Your task to perform on an android device: turn notification dots on Image 0: 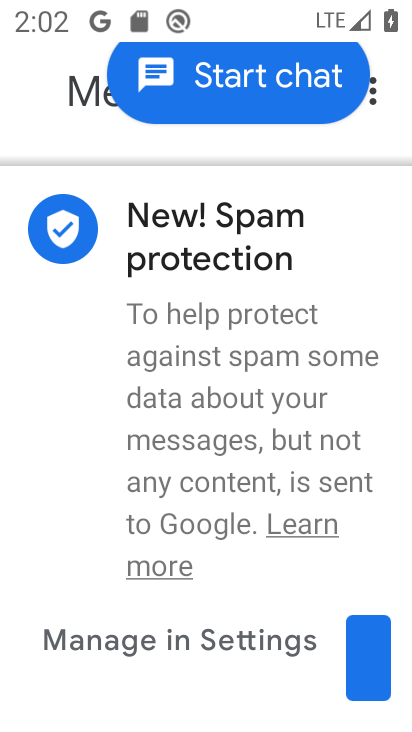
Step 0: press home button
Your task to perform on an android device: turn notification dots on Image 1: 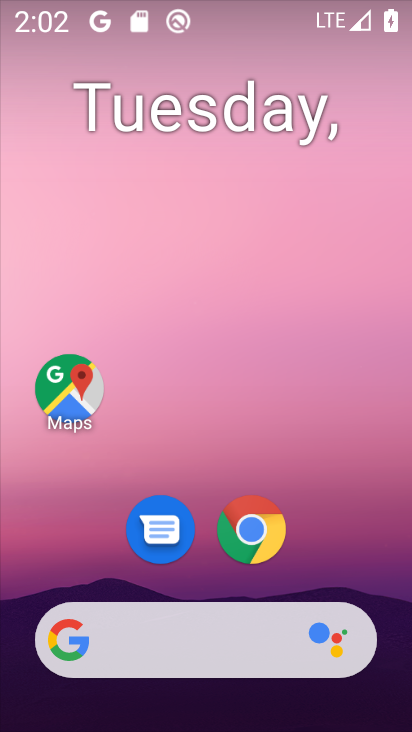
Step 1: drag from (371, 549) to (310, 68)
Your task to perform on an android device: turn notification dots on Image 2: 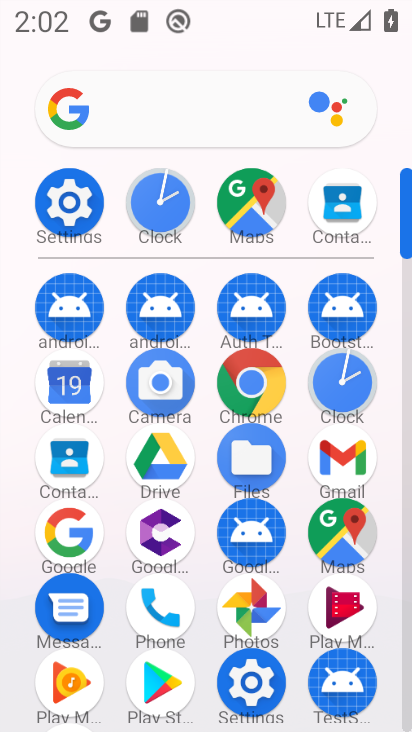
Step 2: click (75, 191)
Your task to perform on an android device: turn notification dots on Image 3: 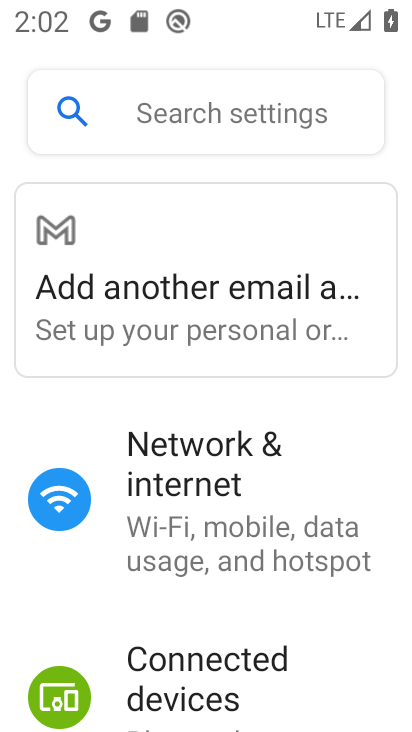
Step 3: drag from (371, 624) to (337, 85)
Your task to perform on an android device: turn notification dots on Image 4: 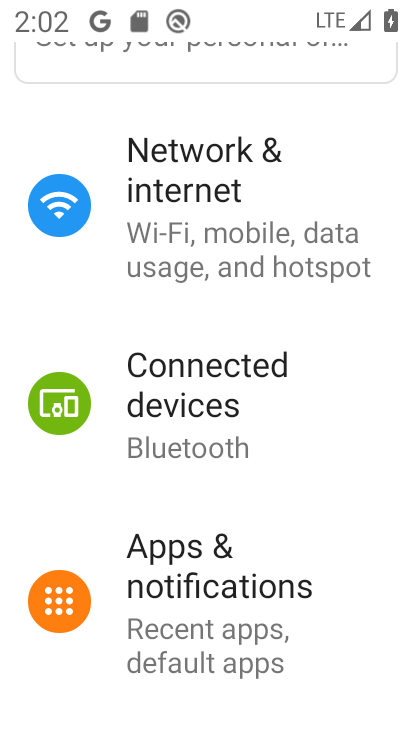
Step 4: click (211, 579)
Your task to perform on an android device: turn notification dots on Image 5: 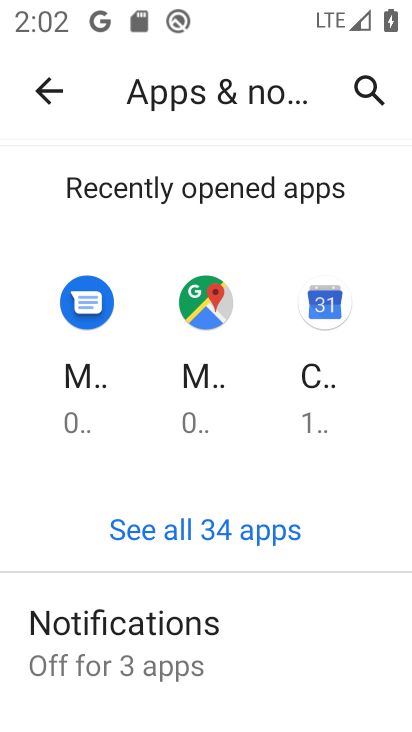
Step 5: drag from (302, 684) to (274, 228)
Your task to perform on an android device: turn notification dots on Image 6: 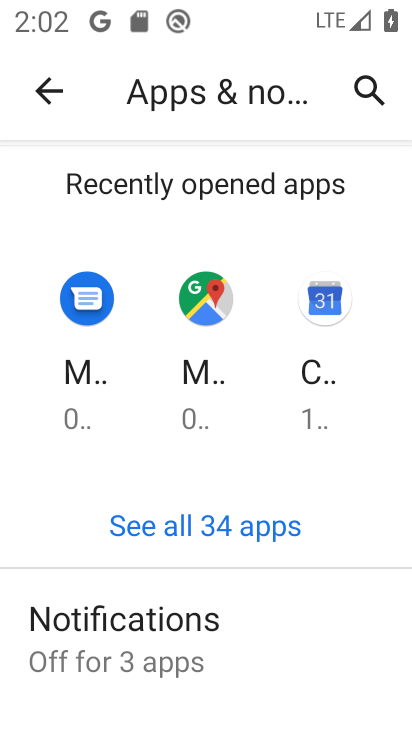
Step 6: drag from (288, 619) to (268, 200)
Your task to perform on an android device: turn notification dots on Image 7: 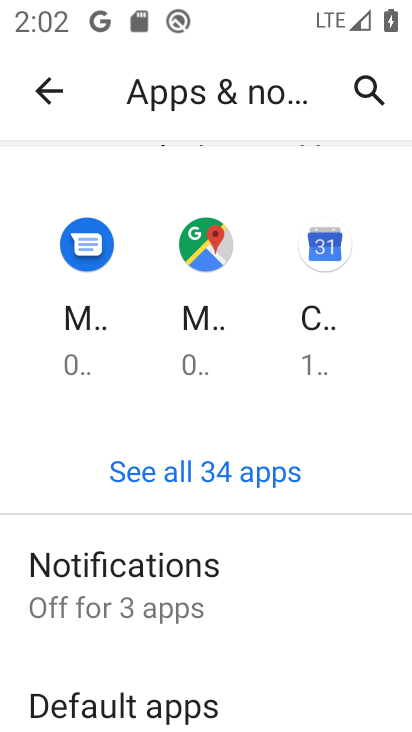
Step 7: click (111, 571)
Your task to perform on an android device: turn notification dots on Image 8: 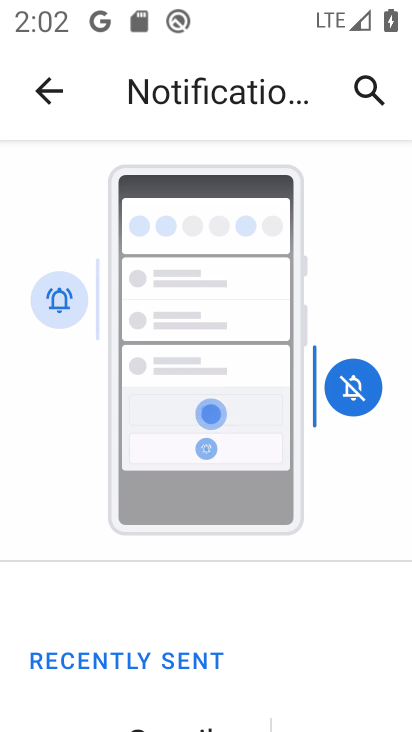
Step 8: drag from (300, 346) to (276, 166)
Your task to perform on an android device: turn notification dots on Image 9: 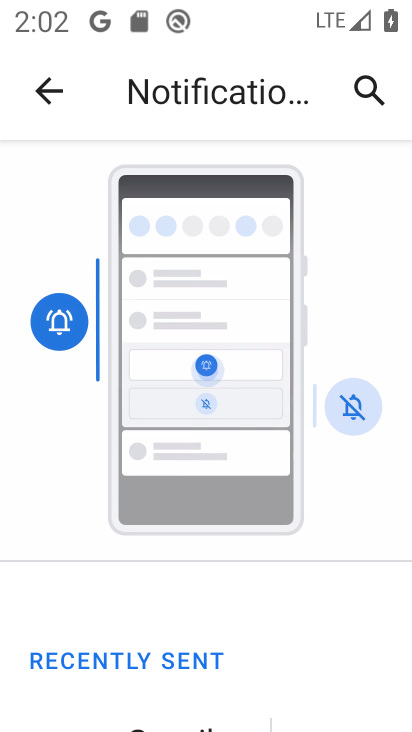
Step 9: drag from (313, 691) to (315, 253)
Your task to perform on an android device: turn notification dots on Image 10: 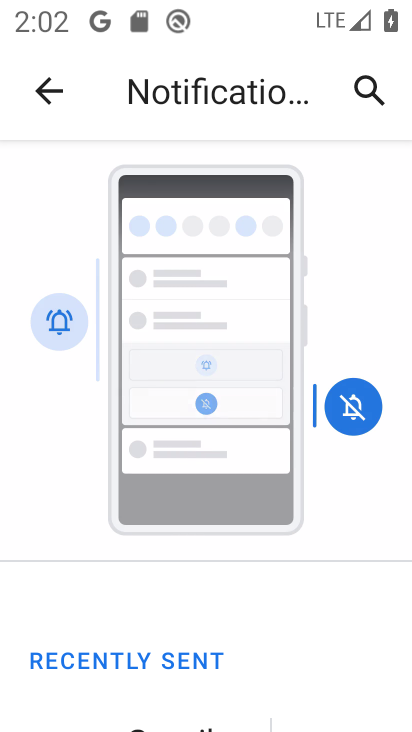
Step 10: drag from (299, 622) to (313, 196)
Your task to perform on an android device: turn notification dots on Image 11: 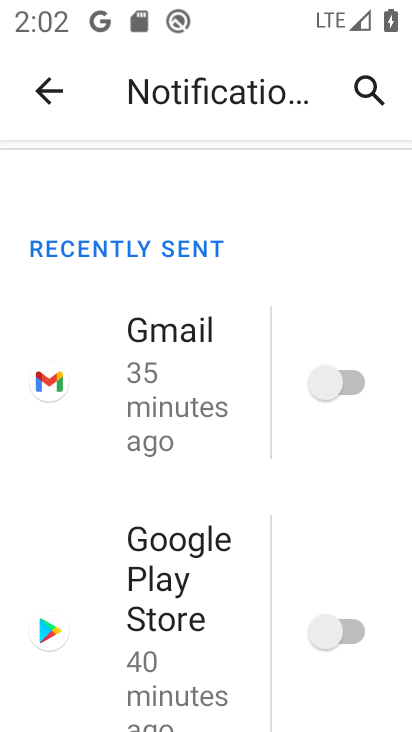
Step 11: click (232, 283)
Your task to perform on an android device: turn notification dots on Image 12: 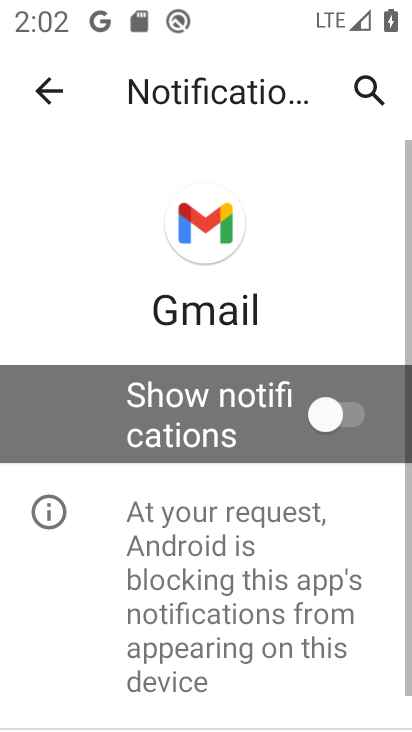
Step 12: drag from (251, 623) to (279, 239)
Your task to perform on an android device: turn notification dots on Image 13: 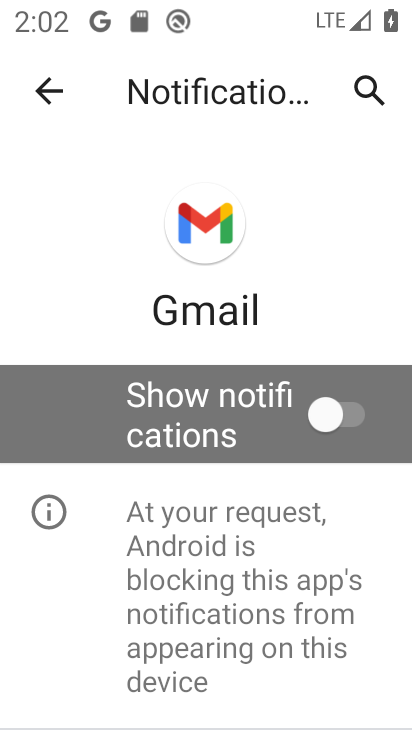
Step 13: press back button
Your task to perform on an android device: turn notification dots on Image 14: 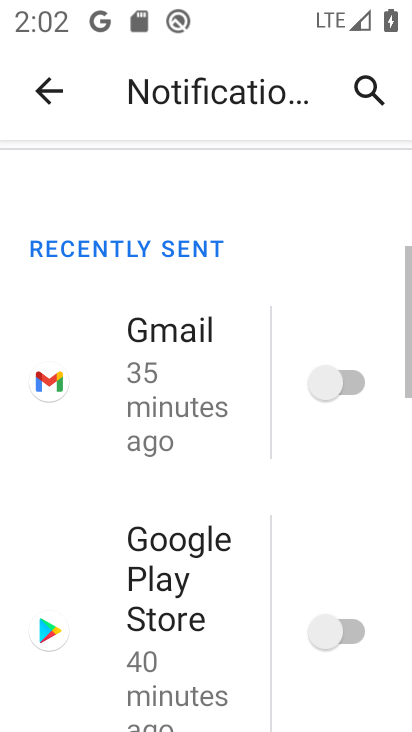
Step 14: drag from (242, 665) to (194, 243)
Your task to perform on an android device: turn notification dots on Image 15: 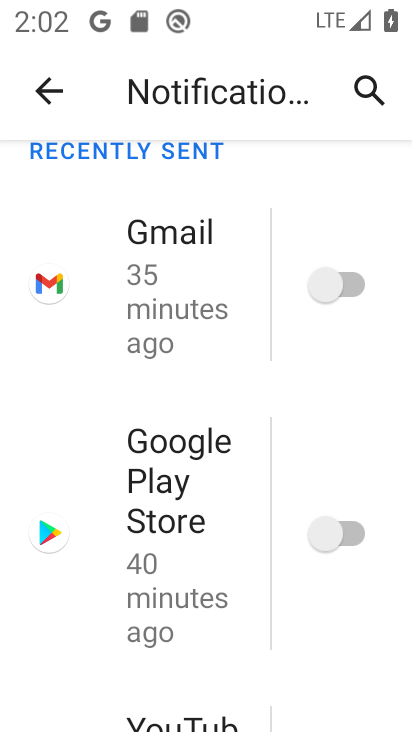
Step 15: drag from (245, 640) to (272, 189)
Your task to perform on an android device: turn notification dots on Image 16: 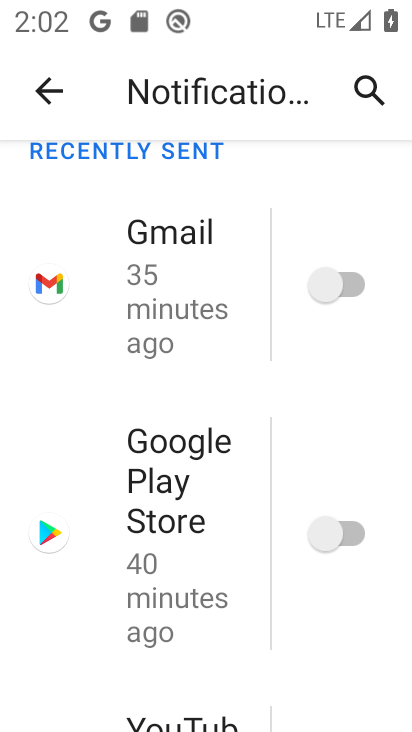
Step 16: drag from (298, 464) to (293, 241)
Your task to perform on an android device: turn notification dots on Image 17: 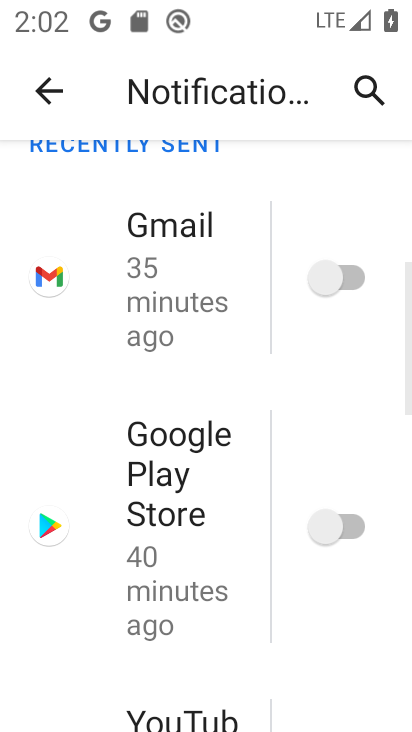
Step 17: drag from (253, 665) to (246, 225)
Your task to perform on an android device: turn notification dots on Image 18: 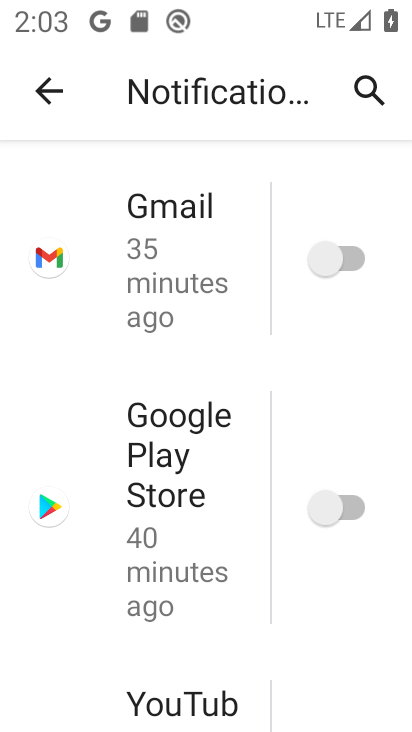
Step 18: drag from (265, 641) to (208, 185)
Your task to perform on an android device: turn notification dots on Image 19: 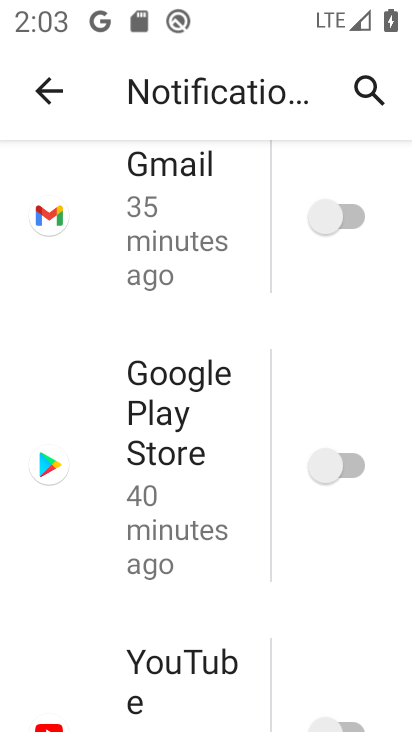
Step 19: drag from (300, 652) to (300, 148)
Your task to perform on an android device: turn notification dots on Image 20: 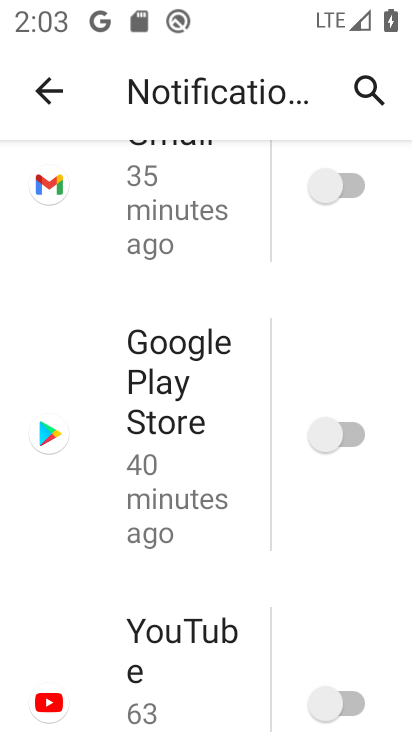
Step 20: drag from (221, 613) to (204, 330)
Your task to perform on an android device: turn notification dots on Image 21: 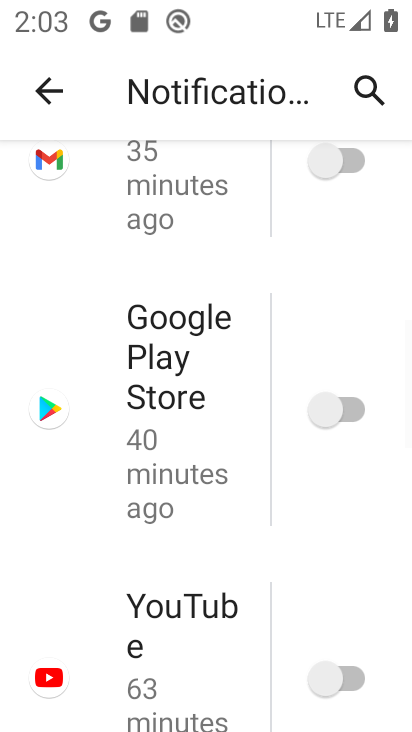
Step 21: drag from (258, 637) to (252, 163)
Your task to perform on an android device: turn notification dots on Image 22: 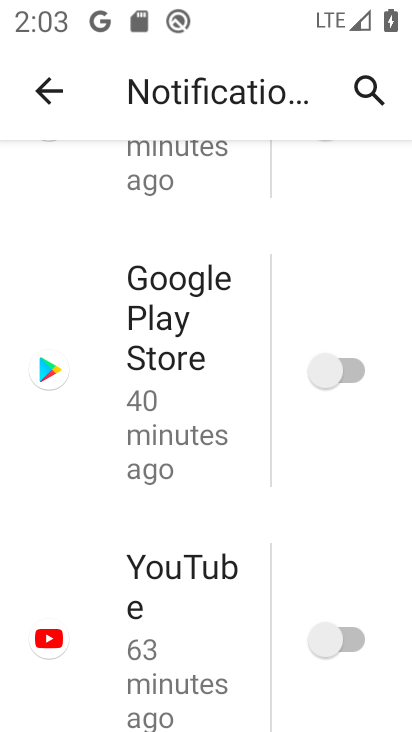
Step 22: drag from (253, 676) to (221, 259)
Your task to perform on an android device: turn notification dots on Image 23: 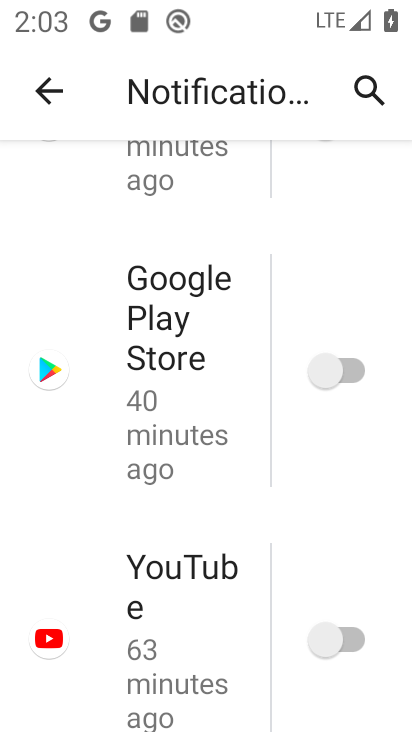
Step 23: drag from (238, 310) to (229, 230)
Your task to perform on an android device: turn notification dots on Image 24: 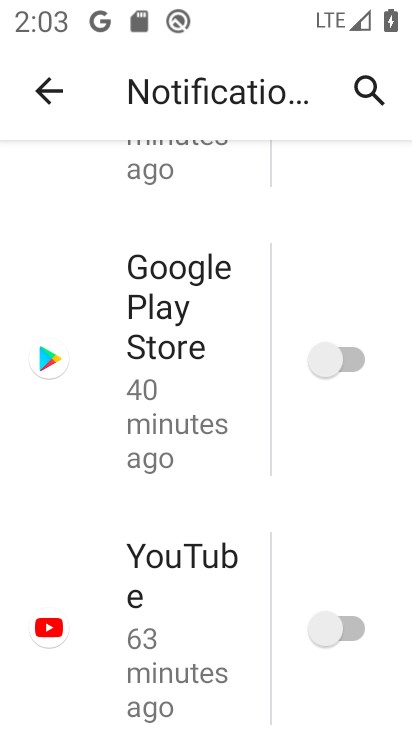
Step 24: drag from (276, 613) to (257, 214)
Your task to perform on an android device: turn notification dots on Image 25: 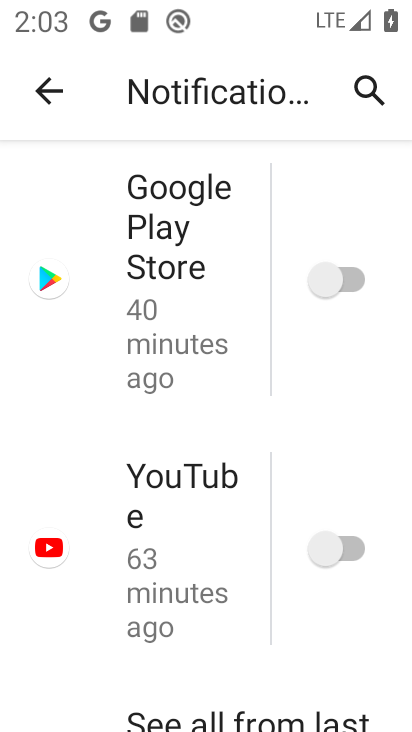
Step 25: drag from (240, 628) to (231, 252)
Your task to perform on an android device: turn notification dots on Image 26: 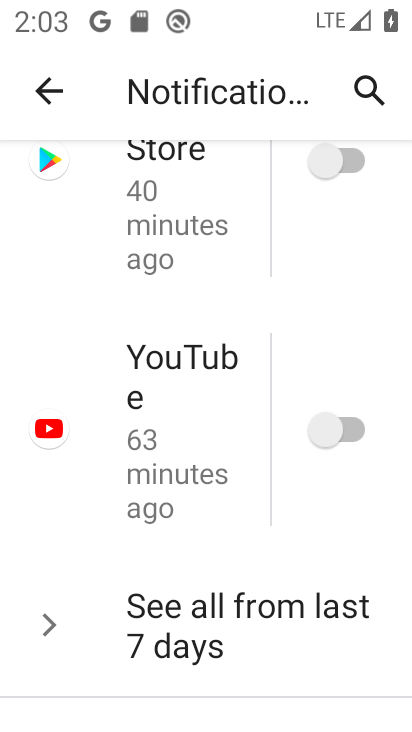
Step 26: drag from (277, 542) to (289, 236)
Your task to perform on an android device: turn notification dots on Image 27: 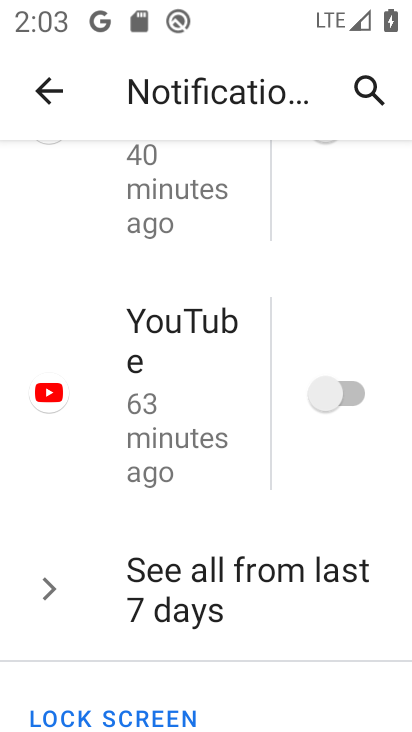
Step 27: drag from (250, 479) to (240, 165)
Your task to perform on an android device: turn notification dots on Image 28: 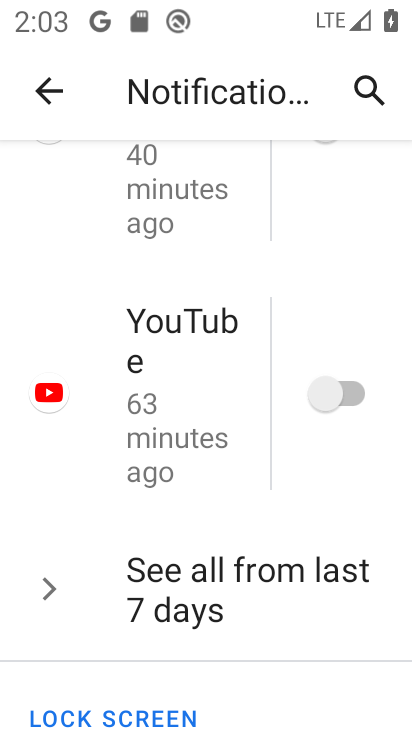
Step 28: drag from (267, 618) to (271, 204)
Your task to perform on an android device: turn notification dots on Image 29: 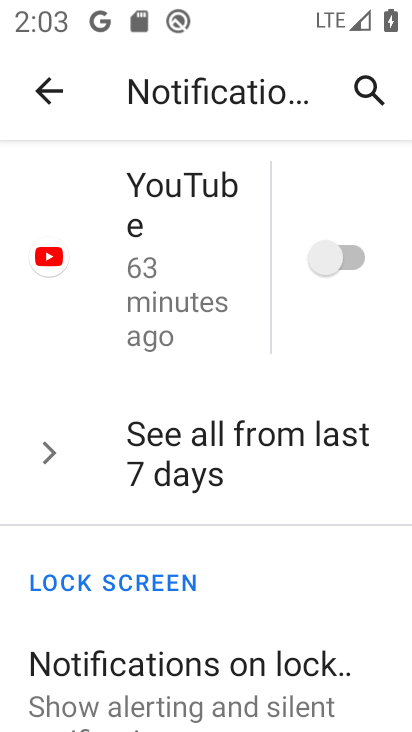
Step 29: drag from (238, 712) to (275, 244)
Your task to perform on an android device: turn notification dots on Image 30: 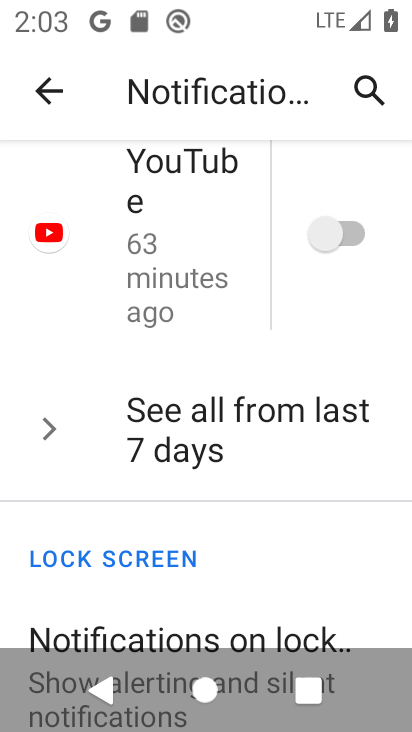
Step 30: drag from (286, 352) to (289, 172)
Your task to perform on an android device: turn notification dots on Image 31: 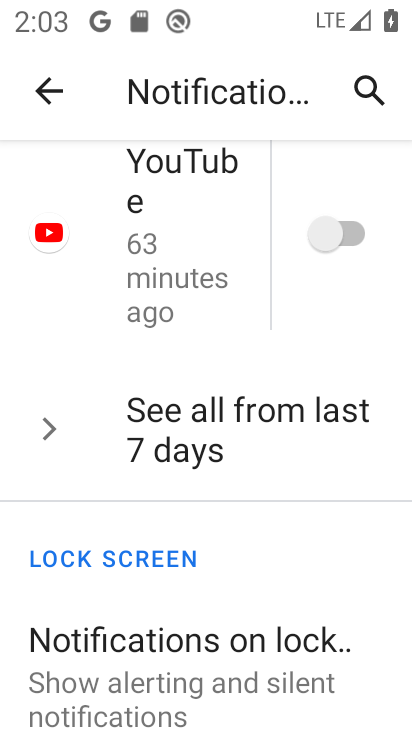
Step 31: drag from (232, 607) to (239, 176)
Your task to perform on an android device: turn notification dots on Image 32: 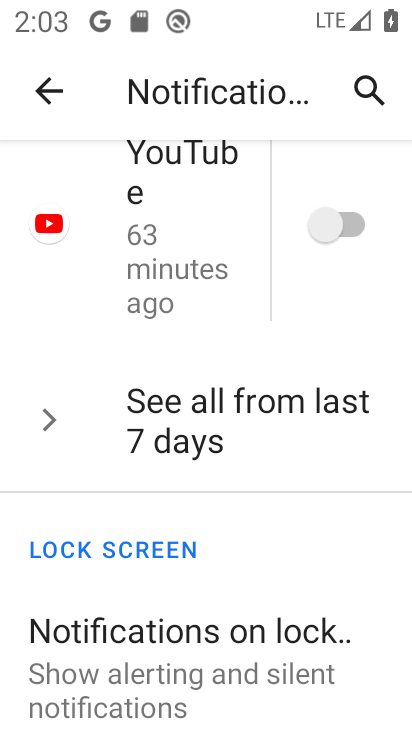
Step 32: drag from (246, 410) to (234, 286)
Your task to perform on an android device: turn notification dots on Image 33: 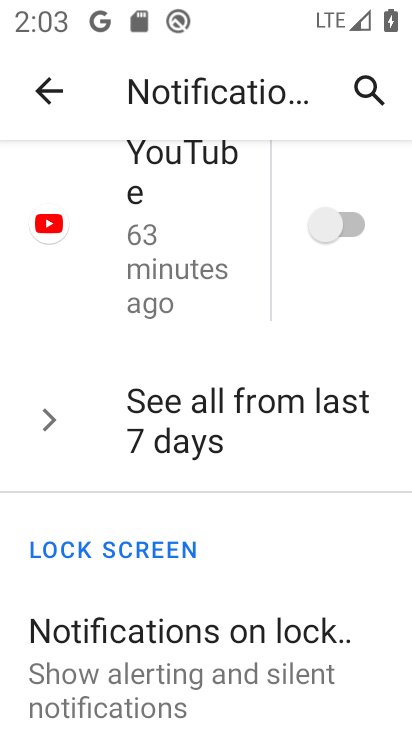
Step 33: drag from (258, 265) to (250, 177)
Your task to perform on an android device: turn notification dots on Image 34: 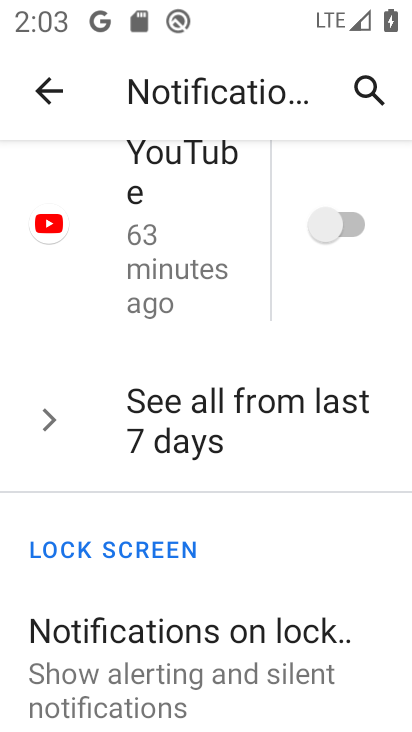
Step 34: drag from (255, 689) to (277, 261)
Your task to perform on an android device: turn notification dots on Image 35: 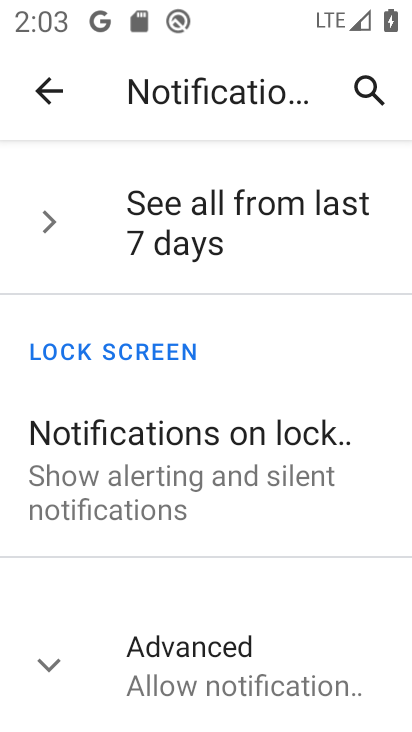
Step 35: drag from (268, 472) to (262, 225)
Your task to perform on an android device: turn notification dots on Image 36: 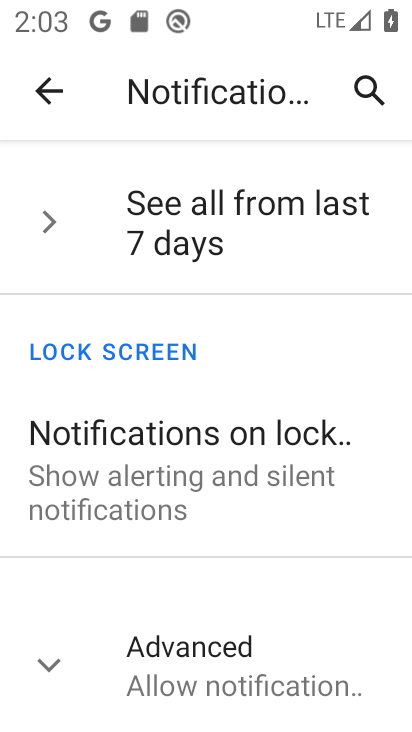
Step 36: click (89, 668)
Your task to perform on an android device: turn notification dots on Image 37: 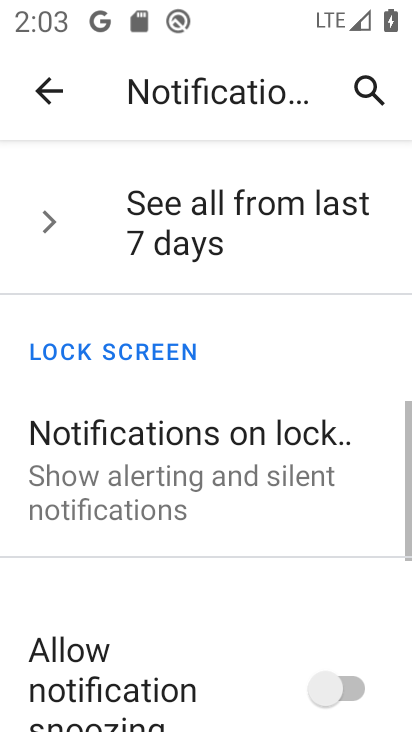
Step 37: task complete